Your task to perform on an android device: see tabs open on other devices in the chrome app Image 0: 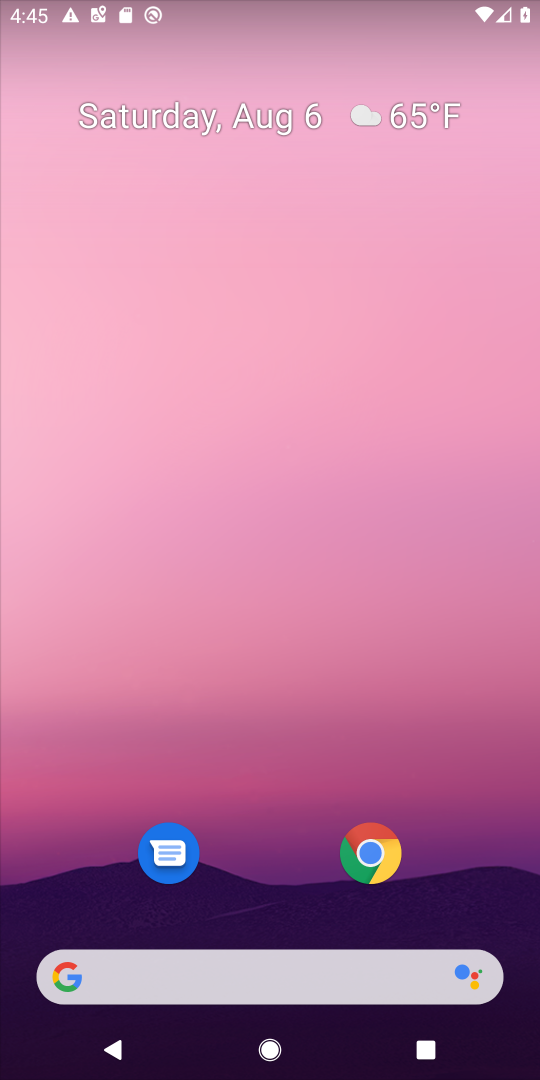
Step 0: click (387, 868)
Your task to perform on an android device: see tabs open on other devices in the chrome app Image 1: 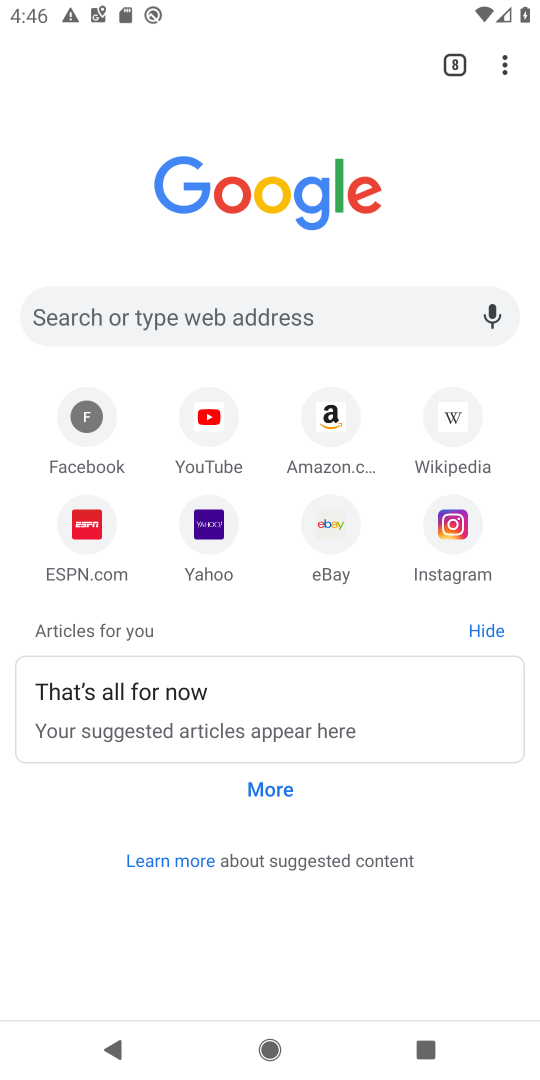
Step 1: task complete